Your task to perform on an android device: toggle translation in the chrome app Image 0: 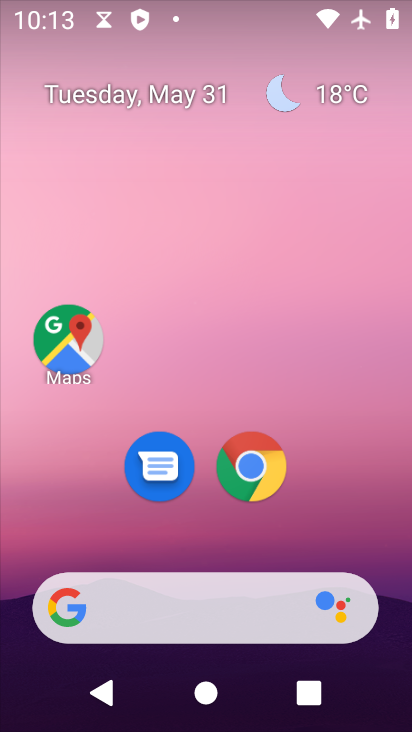
Step 0: drag from (375, 524) to (251, 12)
Your task to perform on an android device: toggle translation in the chrome app Image 1: 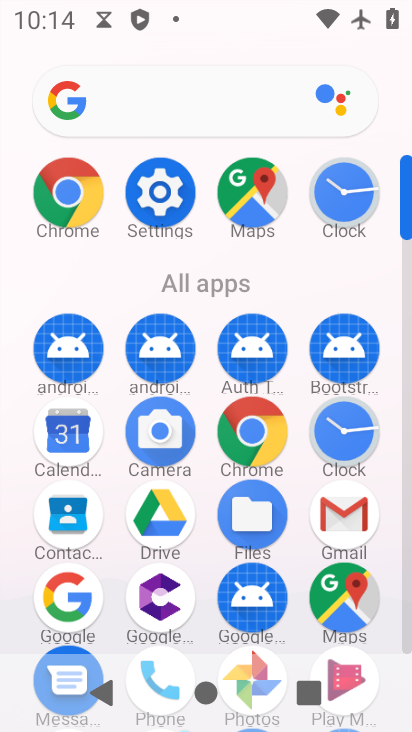
Step 1: click (74, 193)
Your task to perform on an android device: toggle translation in the chrome app Image 2: 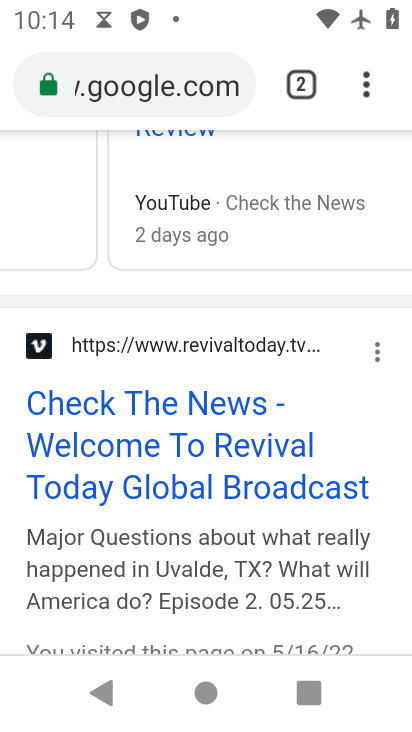
Step 2: click (365, 82)
Your task to perform on an android device: toggle translation in the chrome app Image 3: 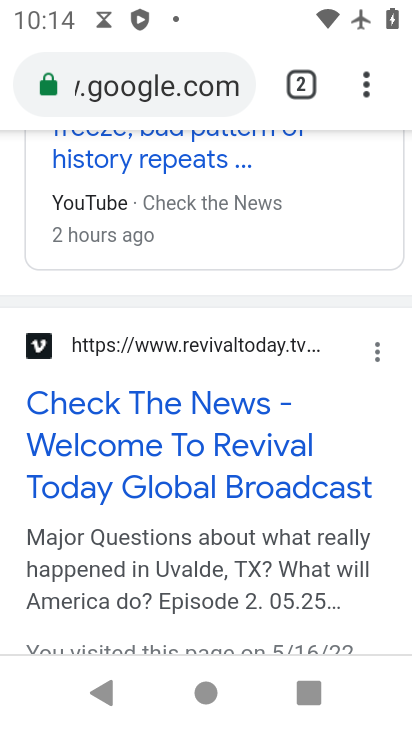
Step 3: drag from (364, 86) to (145, 500)
Your task to perform on an android device: toggle translation in the chrome app Image 4: 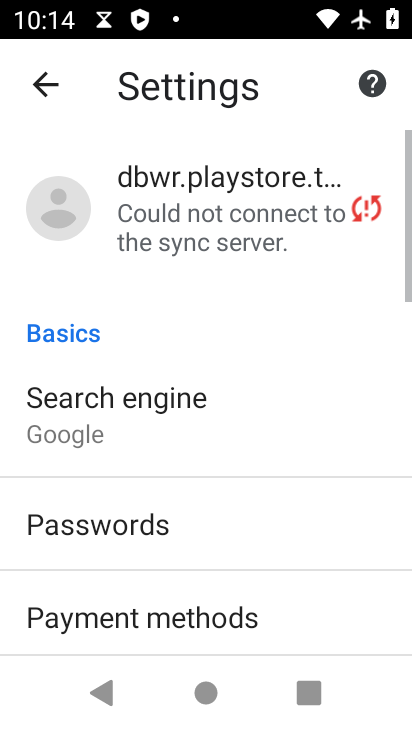
Step 4: drag from (224, 487) to (227, 185)
Your task to perform on an android device: toggle translation in the chrome app Image 5: 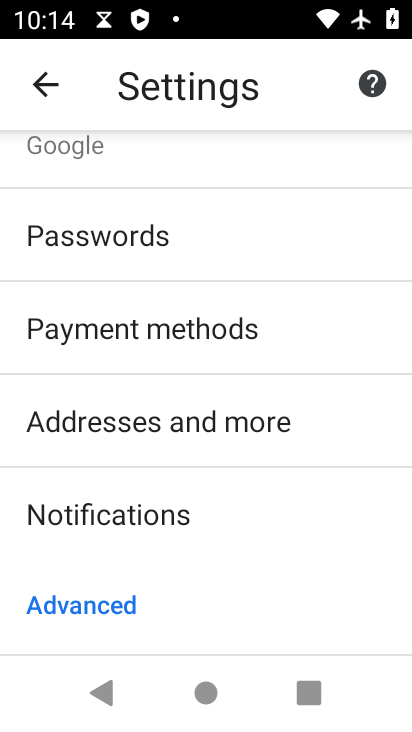
Step 5: drag from (254, 481) to (291, 170)
Your task to perform on an android device: toggle translation in the chrome app Image 6: 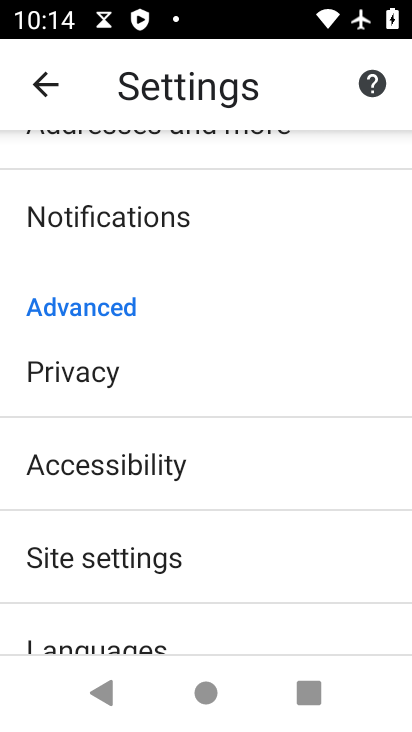
Step 6: drag from (187, 558) to (215, 238)
Your task to perform on an android device: toggle translation in the chrome app Image 7: 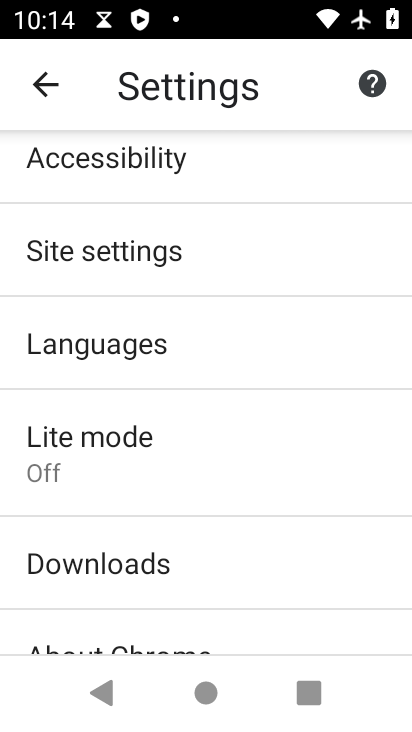
Step 7: click (157, 341)
Your task to perform on an android device: toggle translation in the chrome app Image 8: 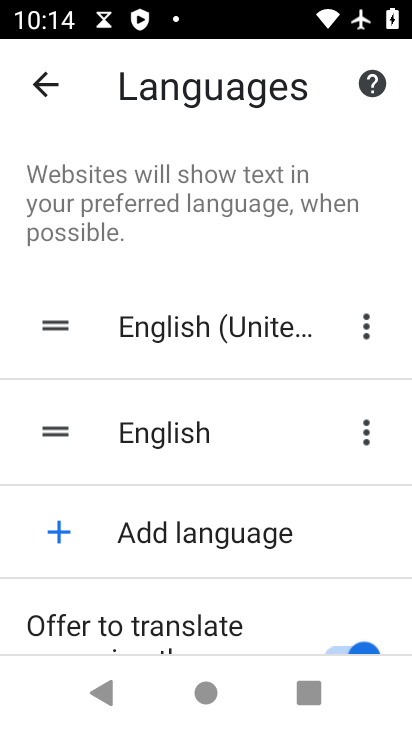
Step 8: drag from (227, 491) to (238, 241)
Your task to perform on an android device: toggle translation in the chrome app Image 9: 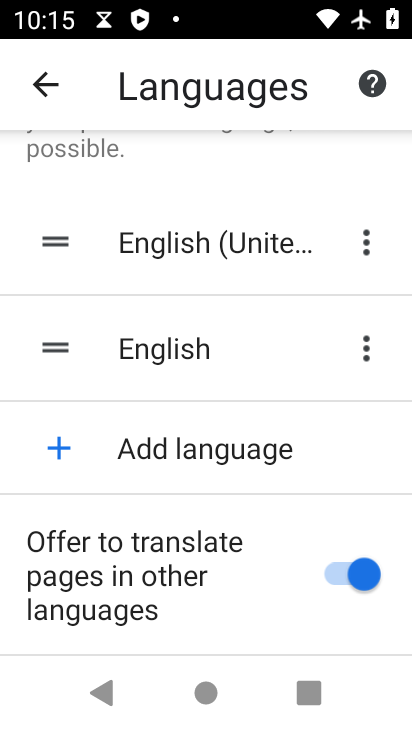
Step 9: click (342, 570)
Your task to perform on an android device: toggle translation in the chrome app Image 10: 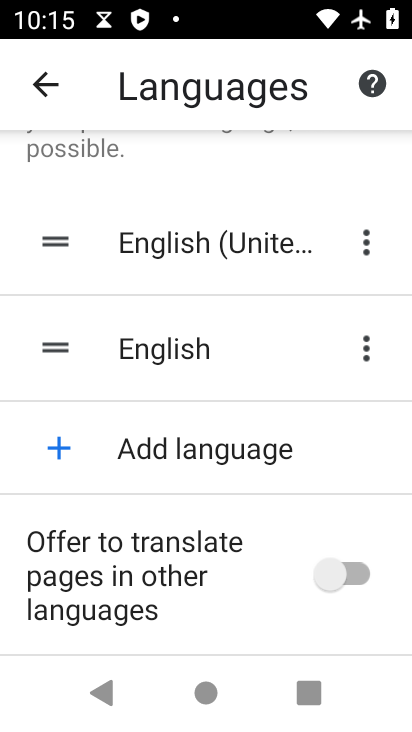
Step 10: task complete